Your task to perform on an android device: Open settings on Google Maps Image 0: 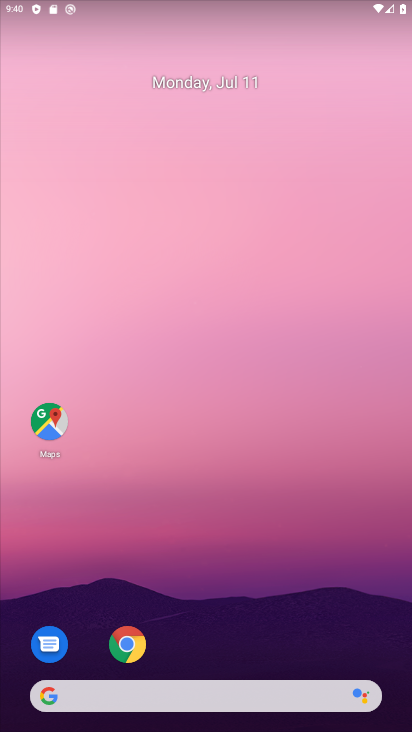
Step 0: click (36, 429)
Your task to perform on an android device: Open settings on Google Maps Image 1: 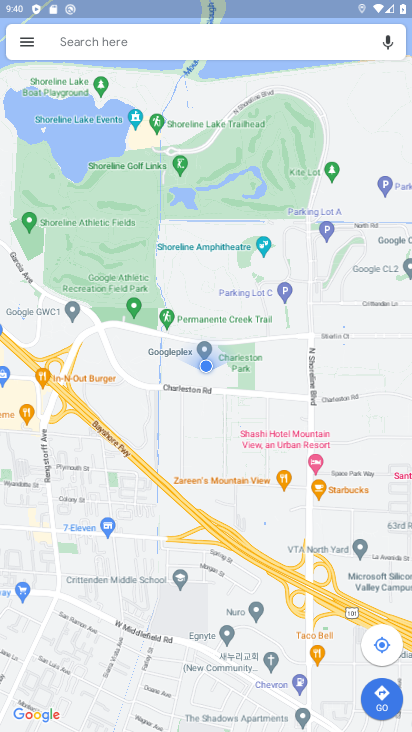
Step 1: task complete